Your task to perform on an android device: set an alarm Image 0: 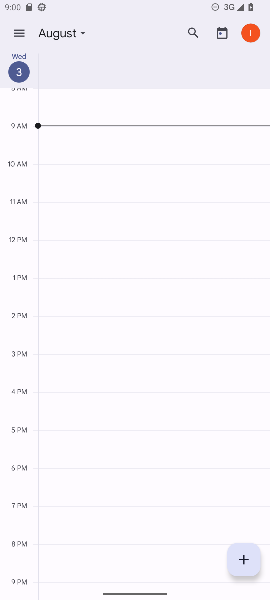
Step 0: press back button
Your task to perform on an android device: set an alarm Image 1: 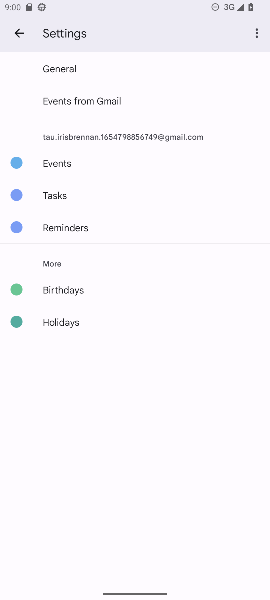
Step 1: press home button
Your task to perform on an android device: set an alarm Image 2: 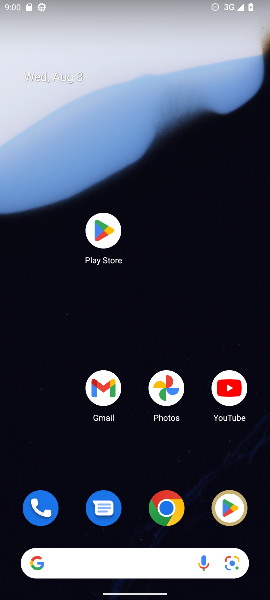
Step 2: drag from (100, 539) to (103, 106)
Your task to perform on an android device: set an alarm Image 3: 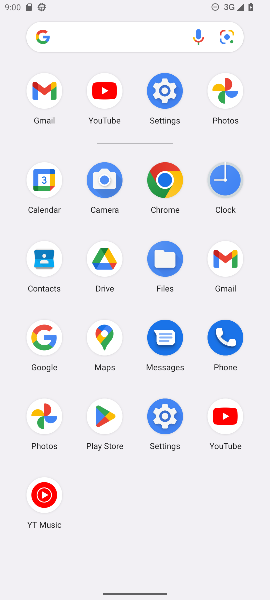
Step 3: click (221, 179)
Your task to perform on an android device: set an alarm Image 4: 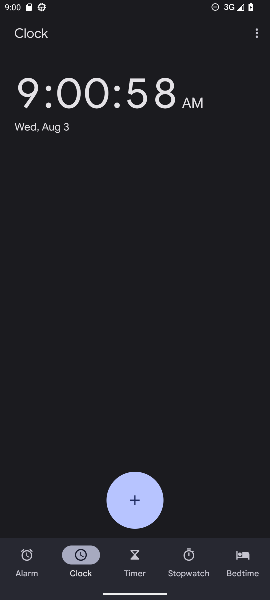
Step 4: click (37, 551)
Your task to perform on an android device: set an alarm Image 5: 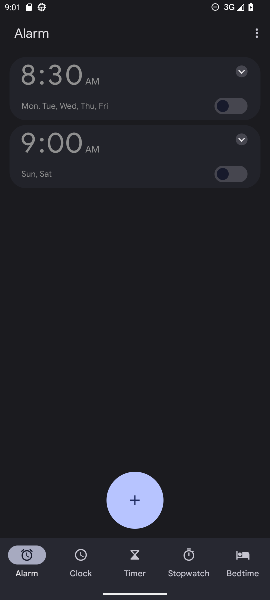
Step 5: task complete